Your task to perform on an android device: Search for seafood restaurants on Google Maps Image 0: 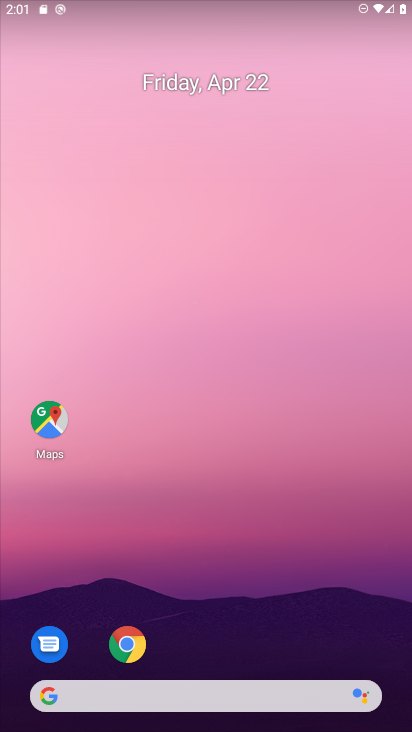
Step 0: drag from (329, 585) to (346, 209)
Your task to perform on an android device: Search for seafood restaurants on Google Maps Image 1: 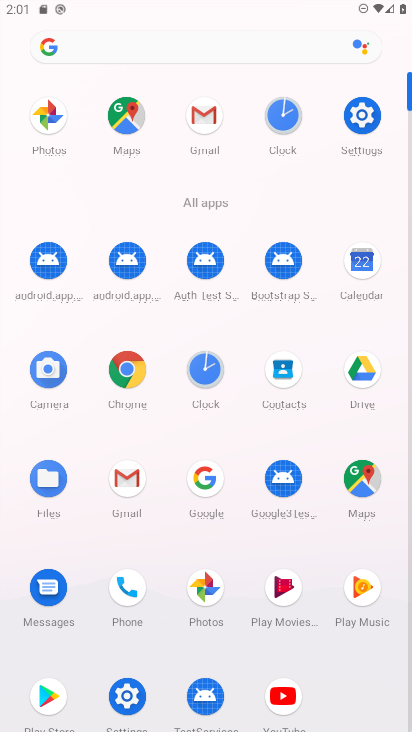
Step 1: click (373, 480)
Your task to perform on an android device: Search for seafood restaurants on Google Maps Image 2: 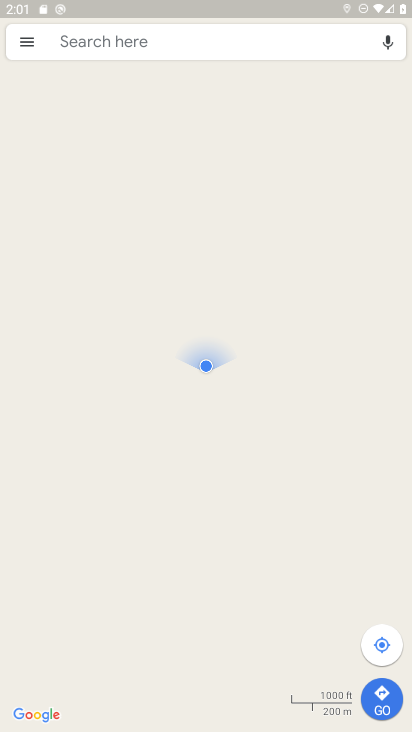
Step 2: click (209, 45)
Your task to perform on an android device: Search for seafood restaurants on Google Maps Image 3: 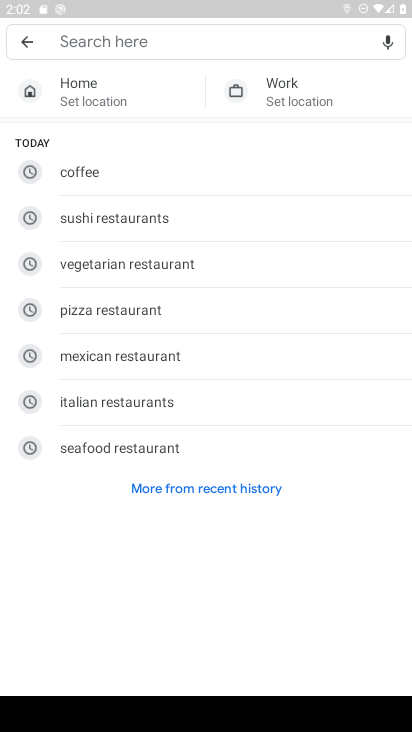
Step 3: type "seafood restaurants"
Your task to perform on an android device: Search for seafood restaurants on Google Maps Image 4: 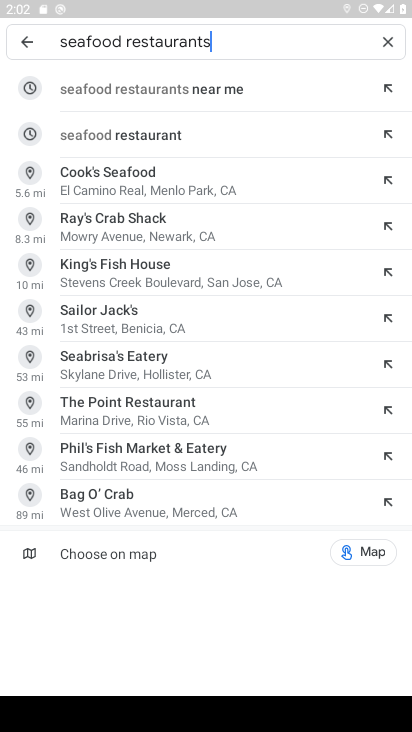
Step 4: press enter
Your task to perform on an android device: Search for seafood restaurants on Google Maps Image 5: 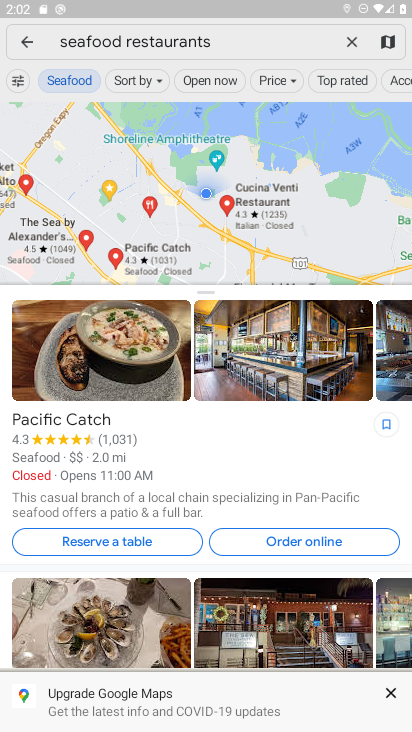
Step 5: task complete